Your task to perform on an android device: Go to battery settings Image 0: 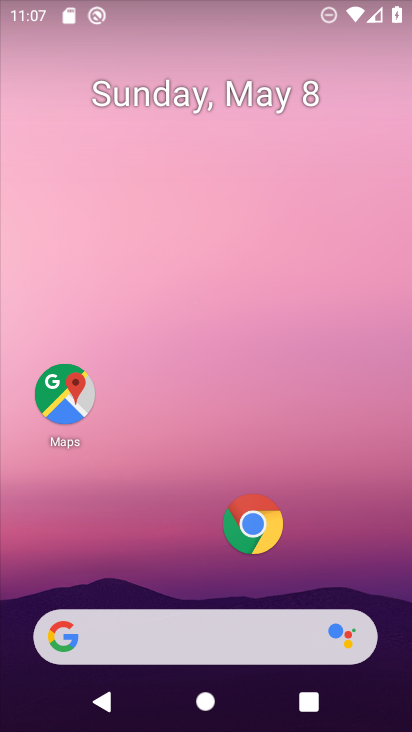
Step 0: drag from (129, 527) to (168, 15)
Your task to perform on an android device: Go to battery settings Image 1: 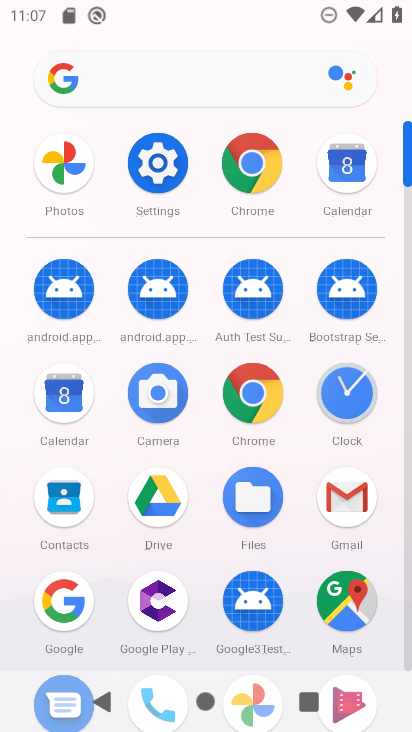
Step 1: click (156, 155)
Your task to perform on an android device: Go to battery settings Image 2: 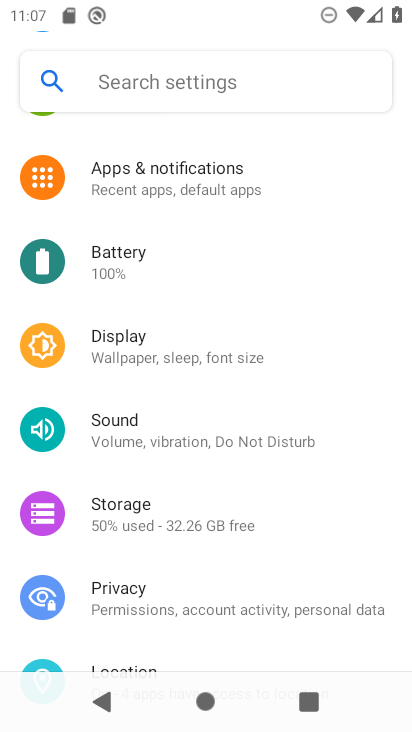
Step 2: click (169, 251)
Your task to perform on an android device: Go to battery settings Image 3: 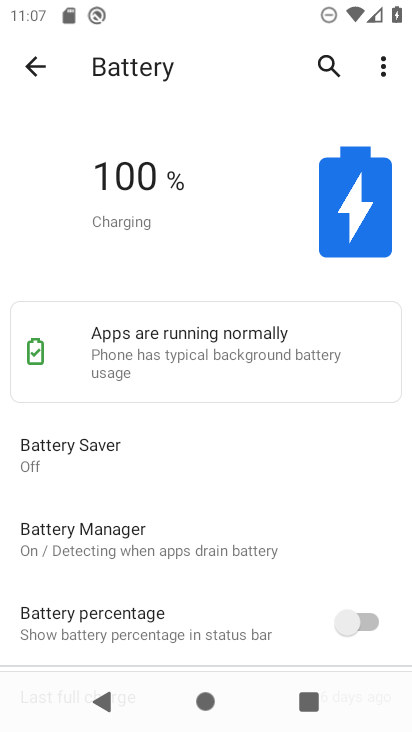
Step 3: task complete